Your task to perform on an android device: turn off notifications settings in the gmail app Image 0: 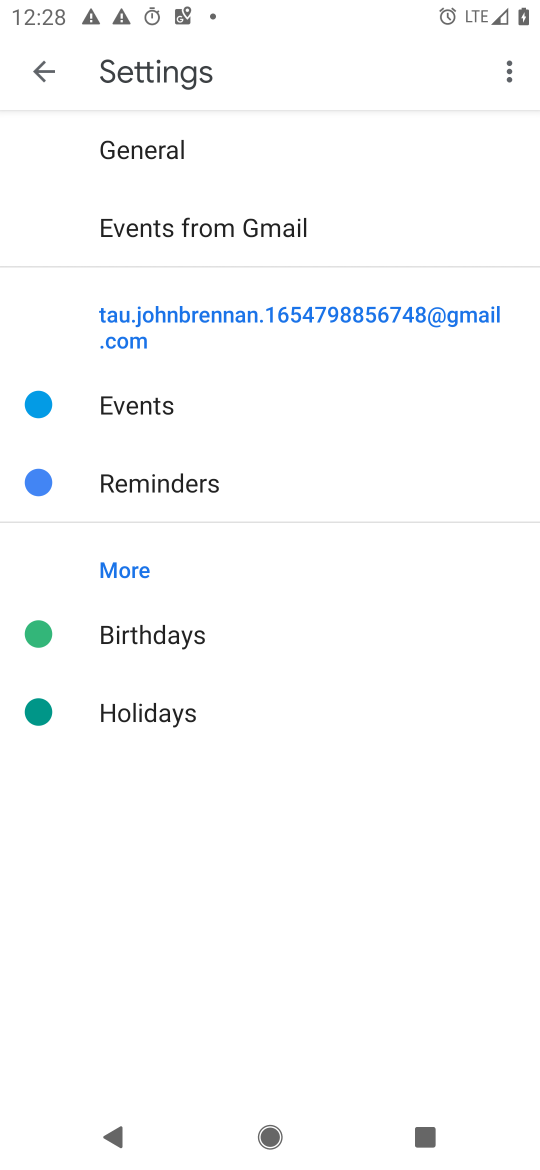
Step 0: drag from (316, 654) to (344, 327)
Your task to perform on an android device: turn off notifications settings in the gmail app Image 1: 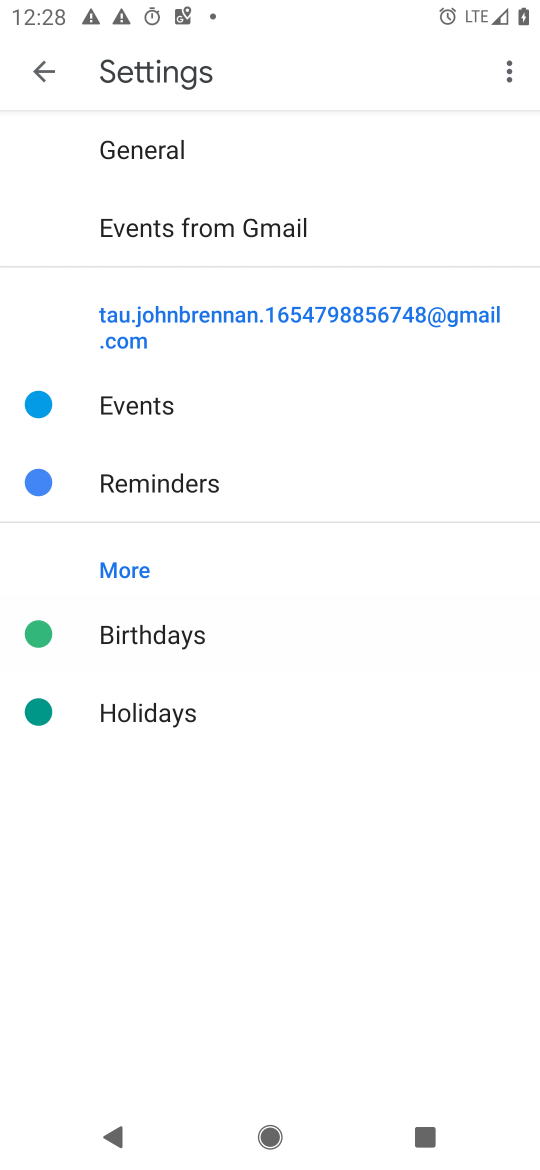
Step 1: drag from (302, 178) to (278, 887)
Your task to perform on an android device: turn off notifications settings in the gmail app Image 2: 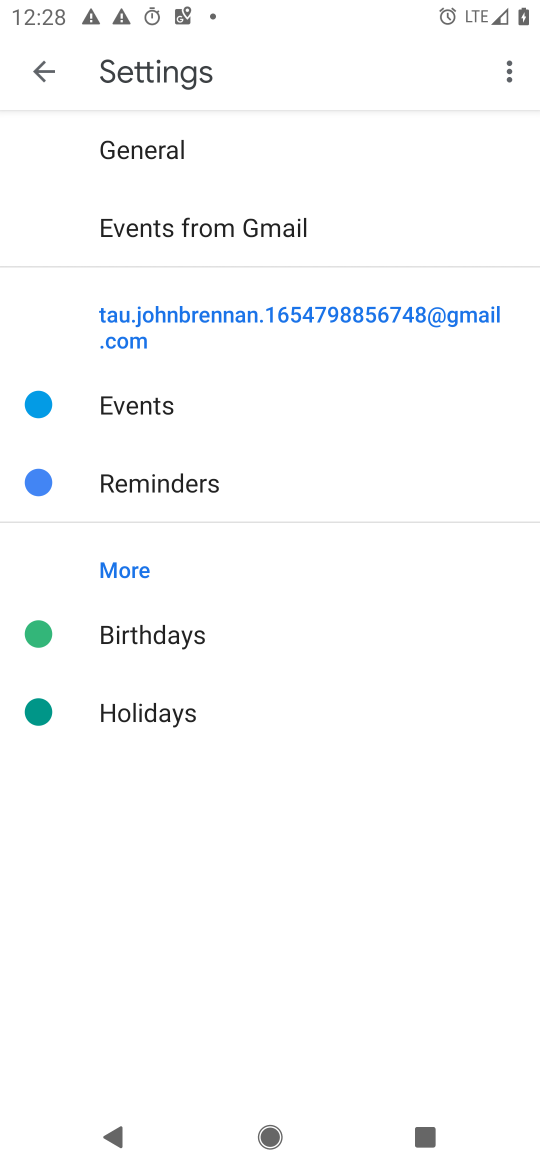
Step 2: drag from (244, 264) to (253, 756)
Your task to perform on an android device: turn off notifications settings in the gmail app Image 3: 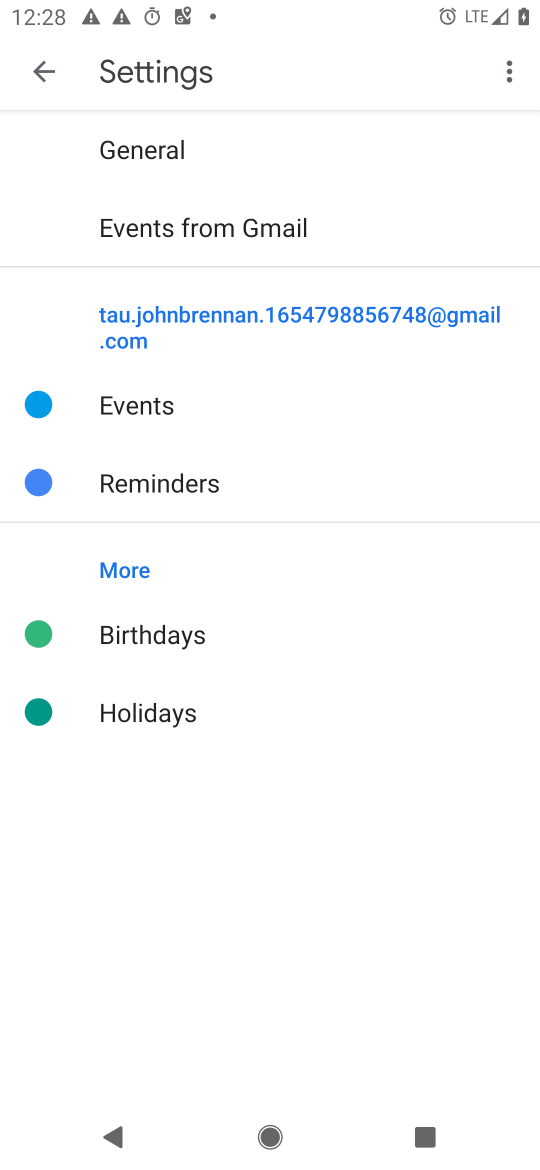
Step 3: press home button
Your task to perform on an android device: turn off notifications settings in the gmail app Image 4: 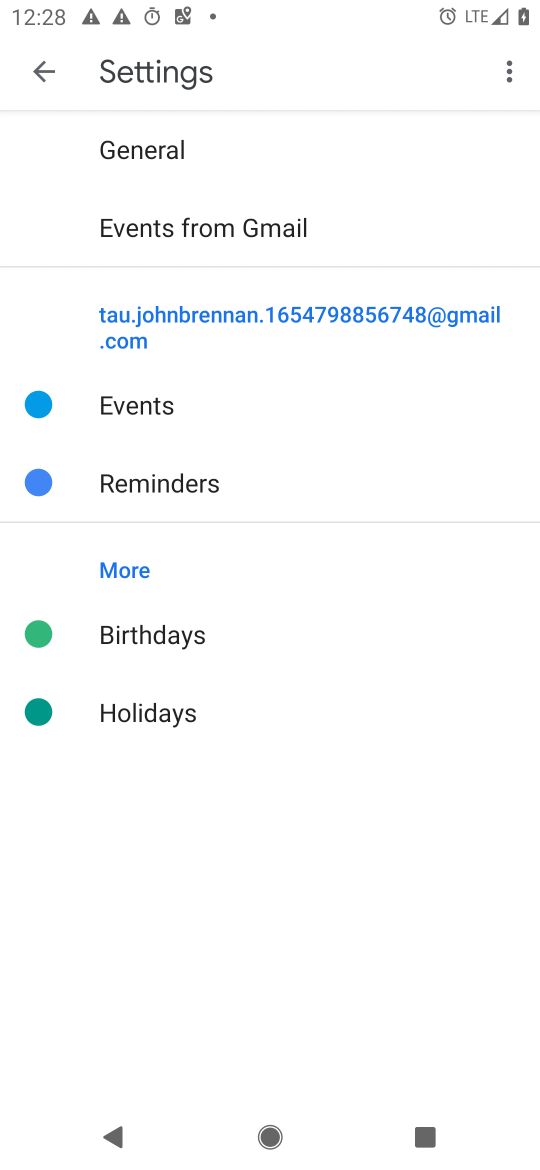
Step 4: drag from (283, 1032) to (256, 324)
Your task to perform on an android device: turn off notifications settings in the gmail app Image 5: 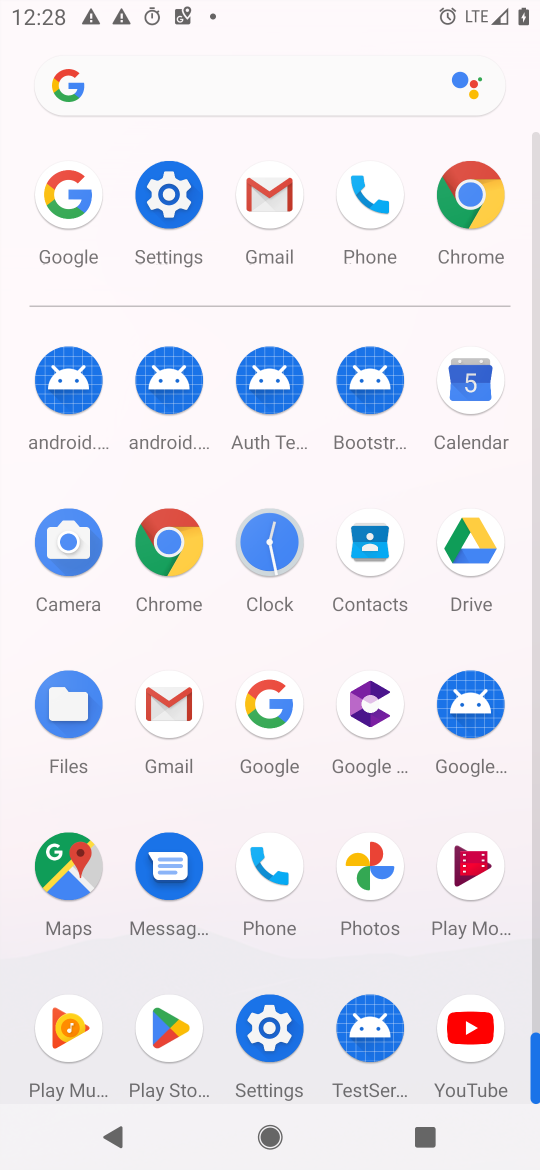
Step 5: click (169, 711)
Your task to perform on an android device: turn off notifications settings in the gmail app Image 6: 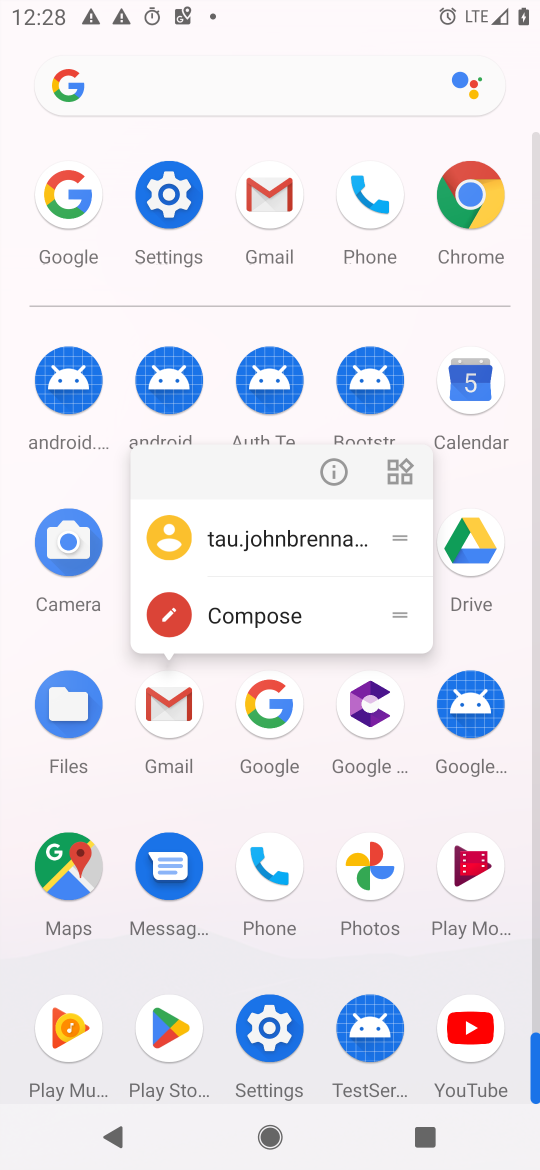
Step 6: click (337, 476)
Your task to perform on an android device: turn off notifications settings in the gmail app Image 7: 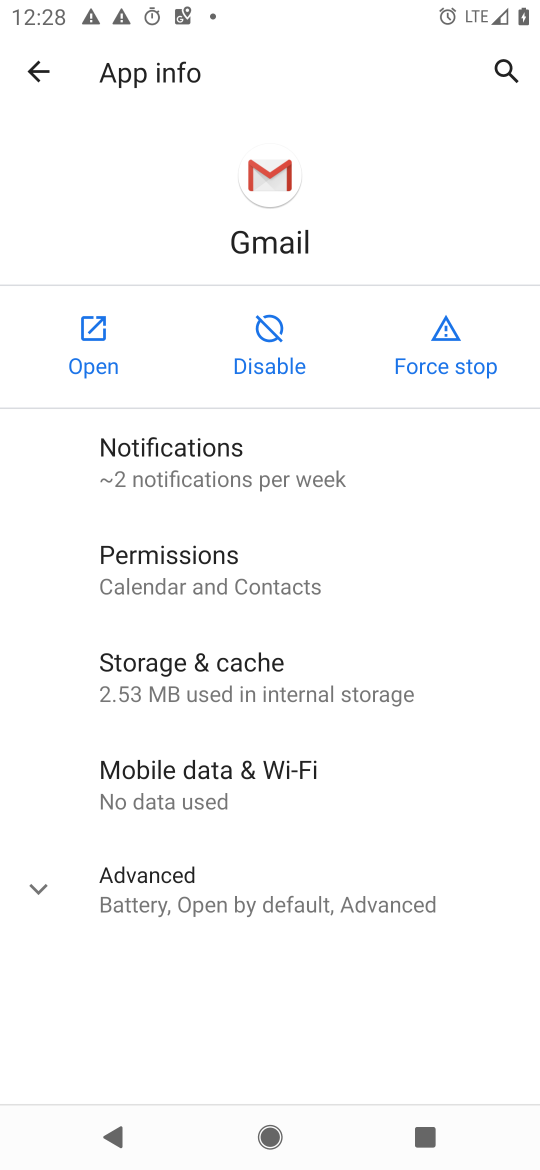
Step 7: click (82, 333)
Your task to perform on an android device: turn off notifications settings in the gmail app Image 8: 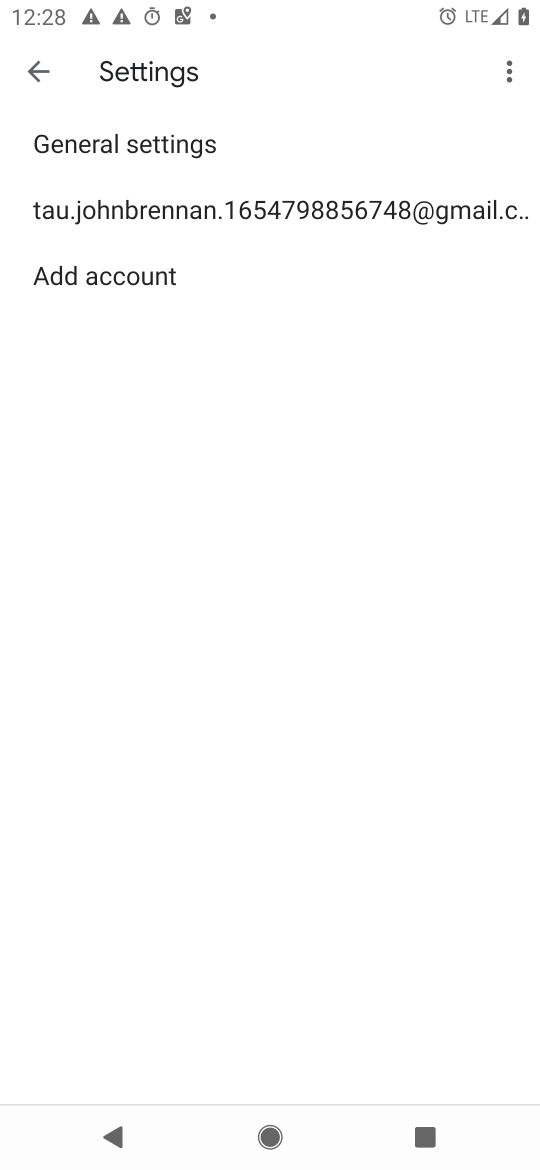
Step 8: click (283, 193)
Your task to perform on an android device: turn off notifications settings in the gmail app Image 9: 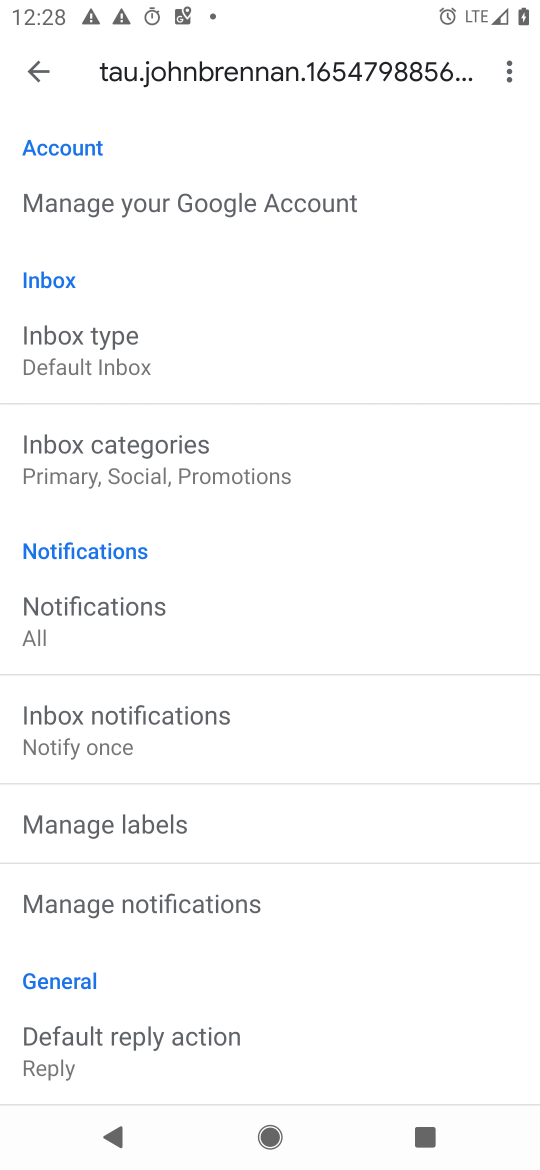
Step 9: click (107, 899)
Your task to perform on an android device: turn off notifications settings in the gmail app Image 10: 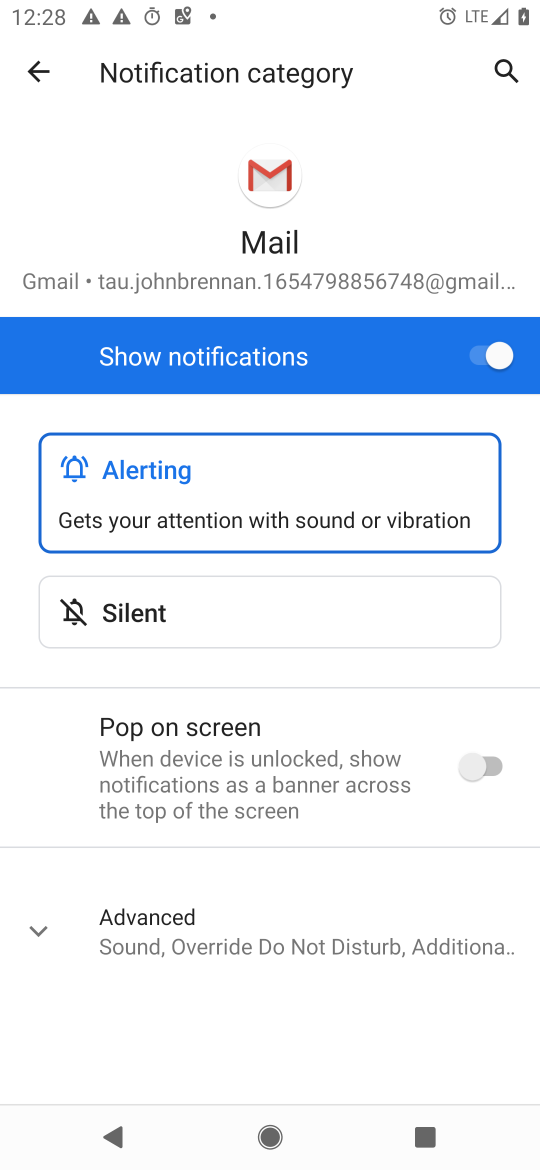
Step 10: click (481, 349)
Your task to perform on an android device: turn off notifications settings in the gmail app Image 11: 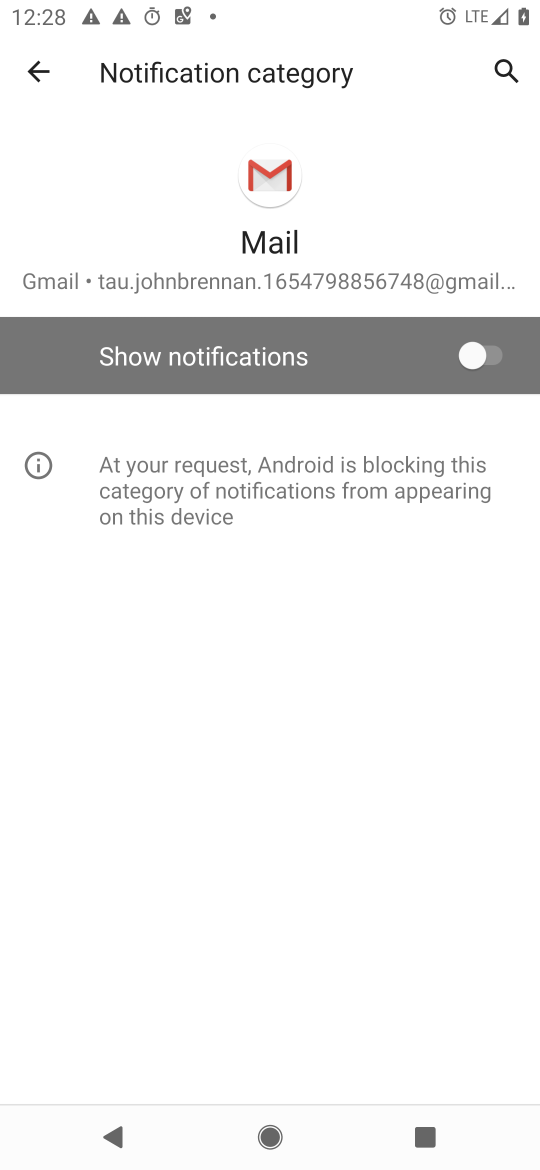
Step 11: task complete